Your task to perform on an android device: Is it going to rain today? Image 0: 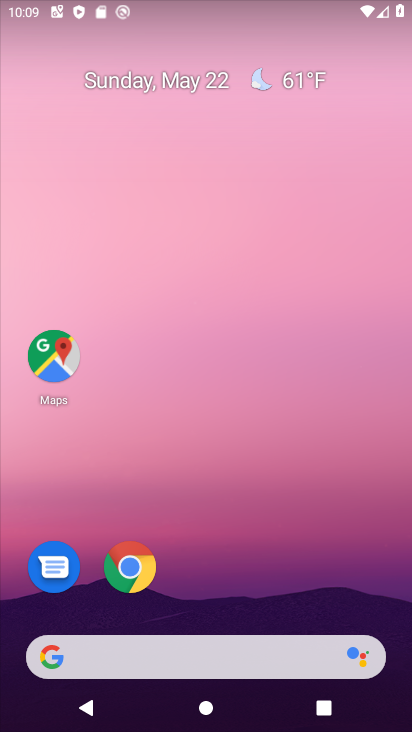
Step 0: click (198, 652)
Your task to perform on an android device: Is it going to rain today? Image 1: 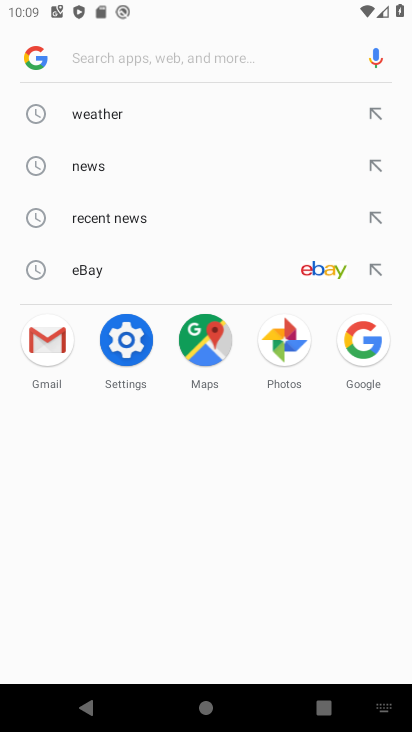
Step 1: click (123, 119)
Your task to perform on an android device: Is it going to rain today? Image 2: 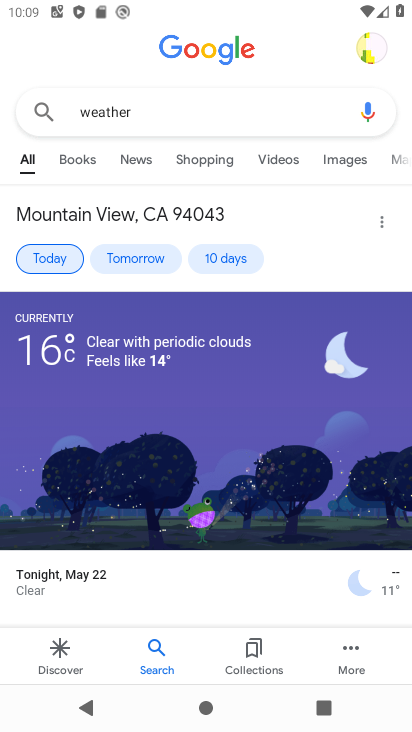
Step 2: task complete